Your task to perform on an android device: Open the Play Movies app and select the watchlist tab. Image 0: 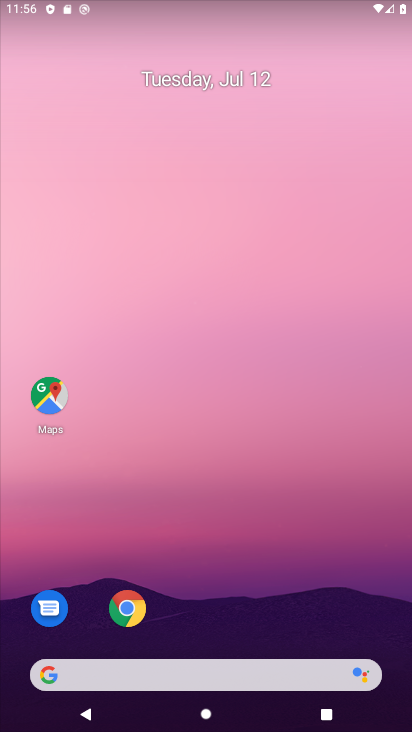
Step 0: click (318, 69)
Your task to perform on an android device: Open the Play Movies app and select the watchlist tab. Image 1: 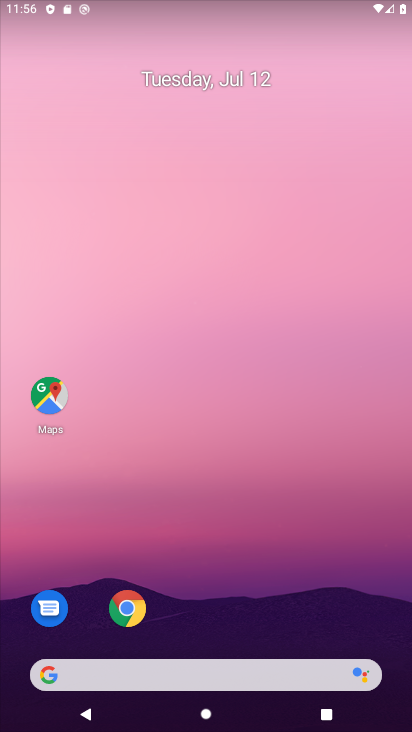
Step 1: drag from (212, 624) to (284, 100)
Your task to perform on an android device: Open the Play Movies app and select the watchlist tab. Image 2: 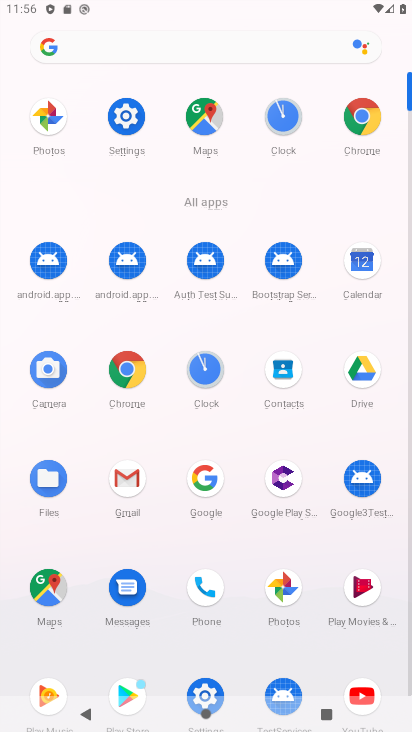
Step 2: click (369, 608)
Your task to perform on an android device: Open the Play Movies app and select the watchlist tab. Image 3: 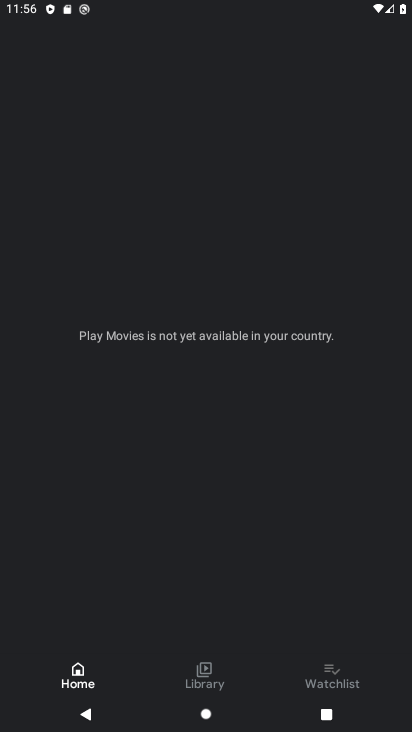
Step 3: click (331, 670)
Your task to perform on an android device: Open the Play Movies app and select the watchlist tab. Image 4: 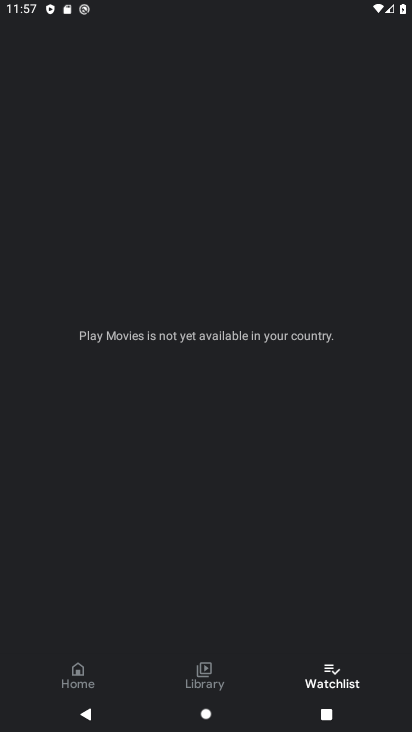
Step 4: task complete